Your task to perform on an android device: check google app version Image 0: 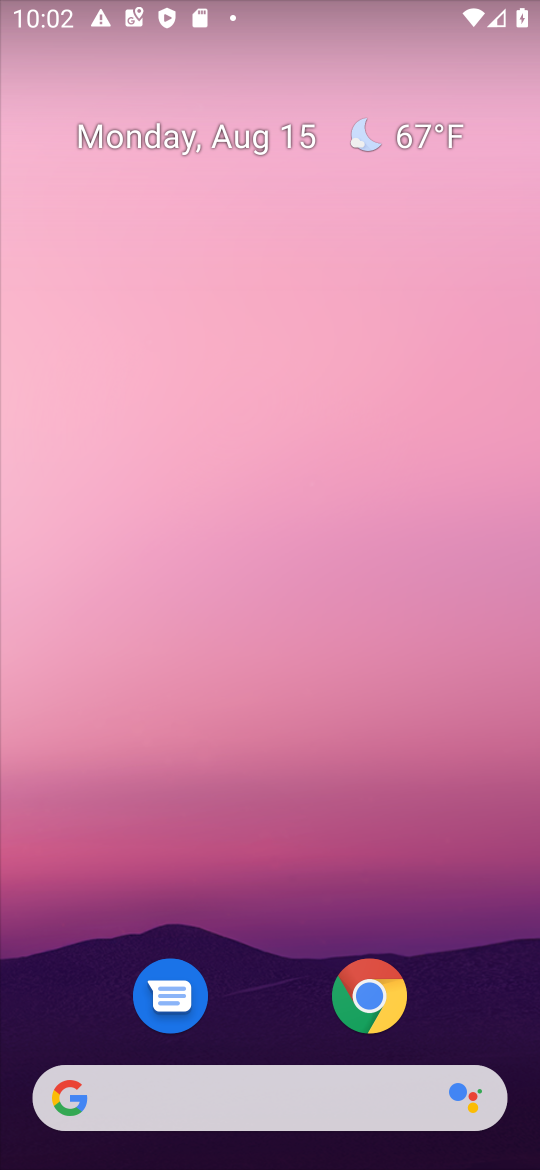
Step 0: drag from (292, 656) to (286, 258)
Your task to perform on an android device: check google app version Image 1: 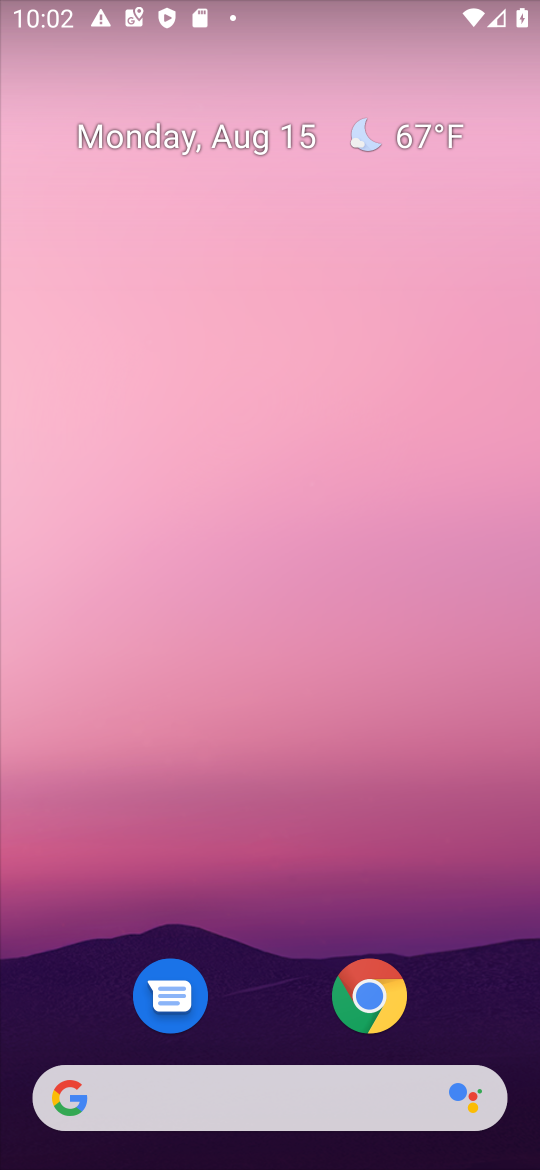
Step 1: drag from (347, 641) to (402, 154)
Your task to perform on an android device: check google app version Image 2: 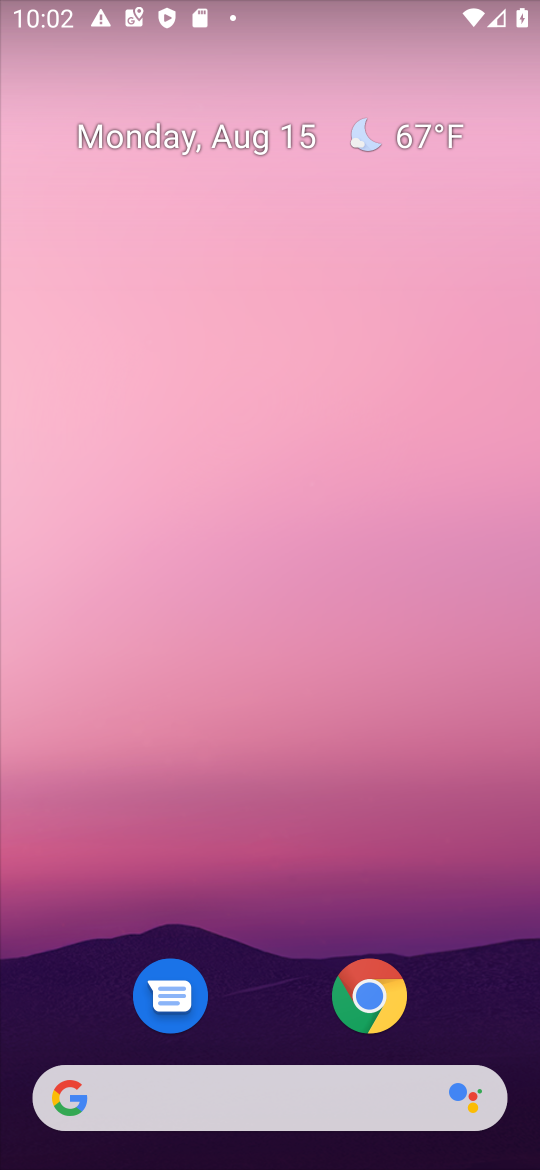
Step 2: drag from (317, 640) to (380, 252)
Your task to perform on an android device: check google app version Image 3: 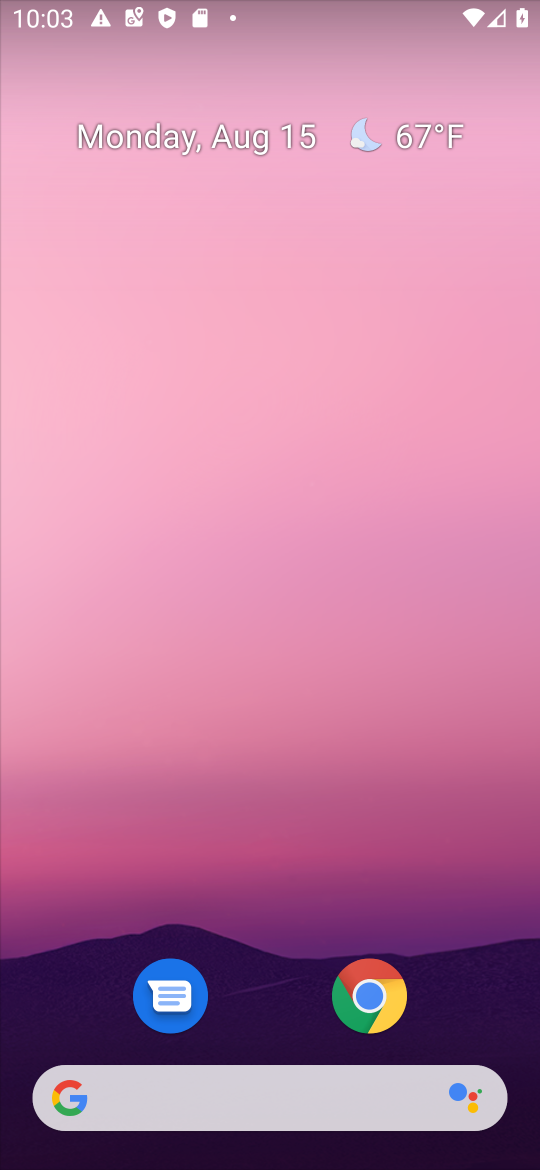
Step 3: drag from (217, 1056) to (209, 236)
Your task to perform on an android device: check google app version Image 4: 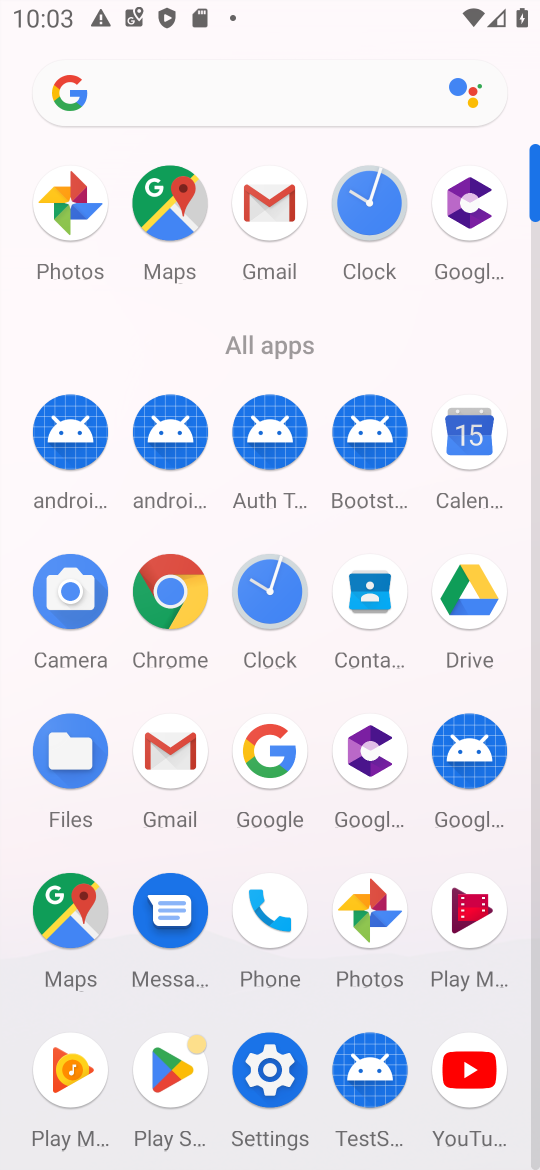
Step 4: click (268, 748)
Your task to perform on an android device: check google app version Image 5: 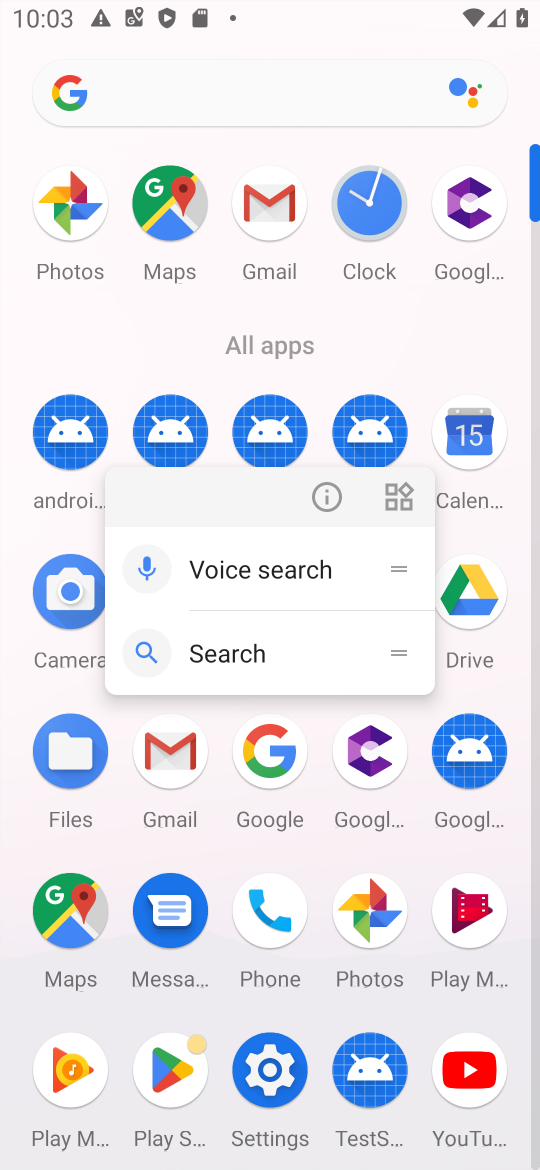
Step 5: click (324, 497)
Your task to perform on an android device: check google app version Image 6: 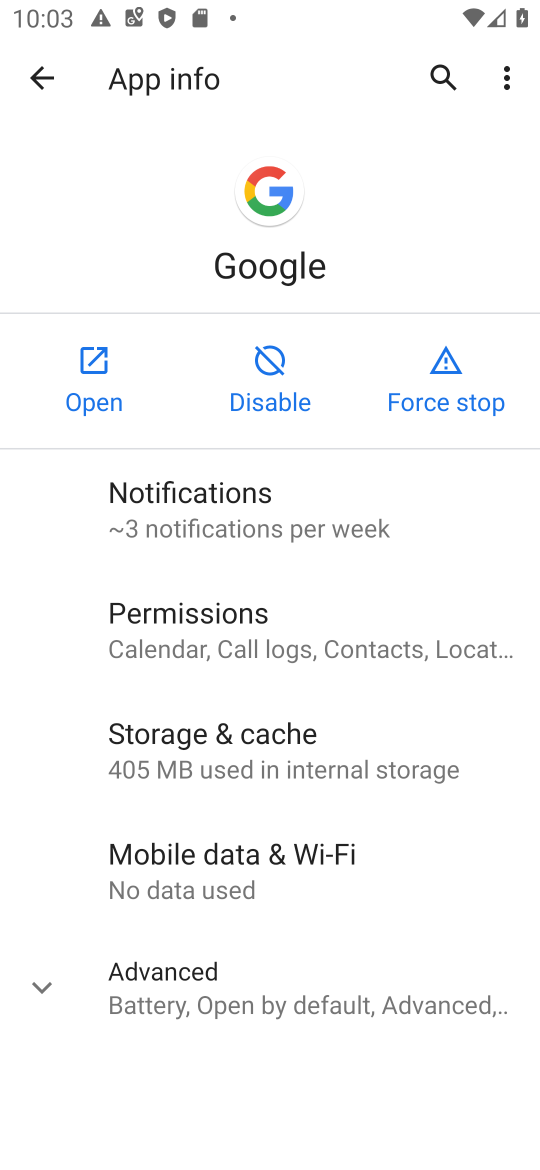
Step 6: click (166, 982)
Your task to perform on an android device: check google app version Image 7: 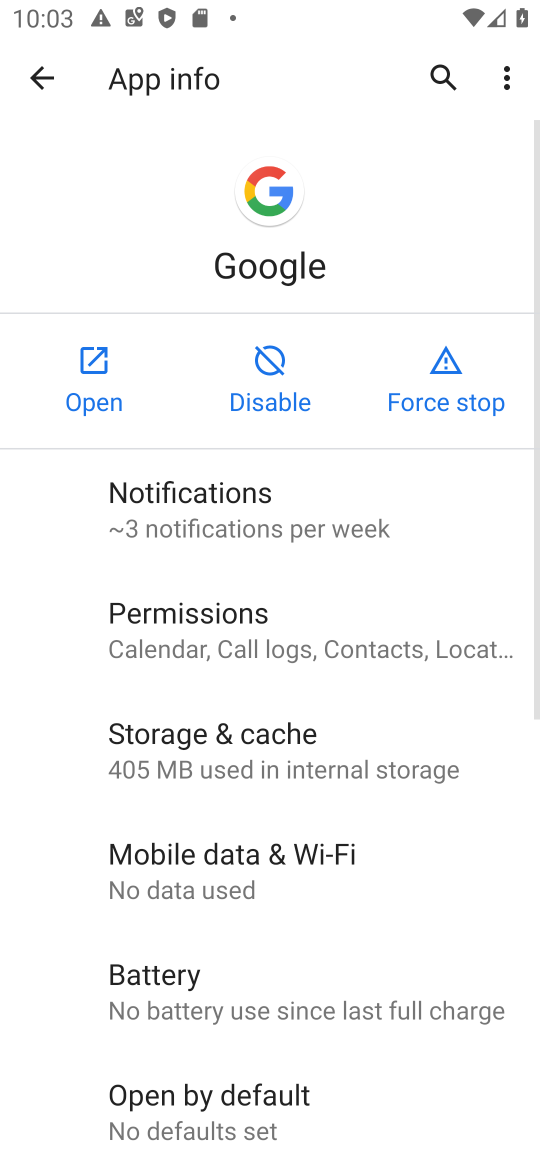
Step 7: task complete